Your task to perform on an android device: turn pop-ups on in chrome Image 0: 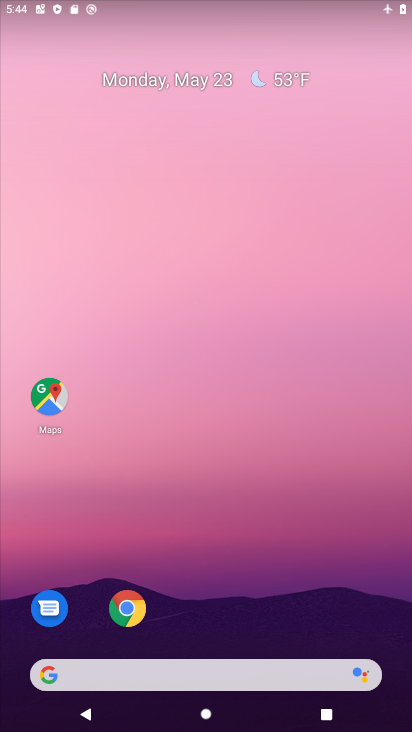
Step 0: click (124, 606)
Your task to perform on an android device: turn pop-ups on in chrome Image 1: 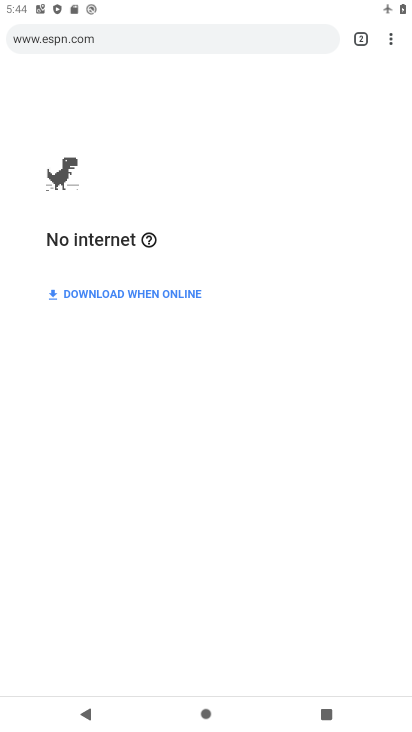
Step 1: drag from (401, 6) to (358, 399)
Your task to perform on an android device: turn pop-ups on in chrome Image 2: 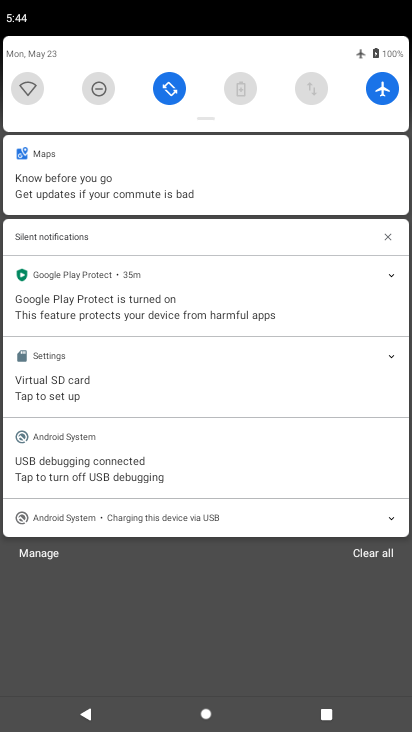
Step 2: click (384, 102)
Your task to perform on an android device: turn pop-ups on in chrome Image 3: 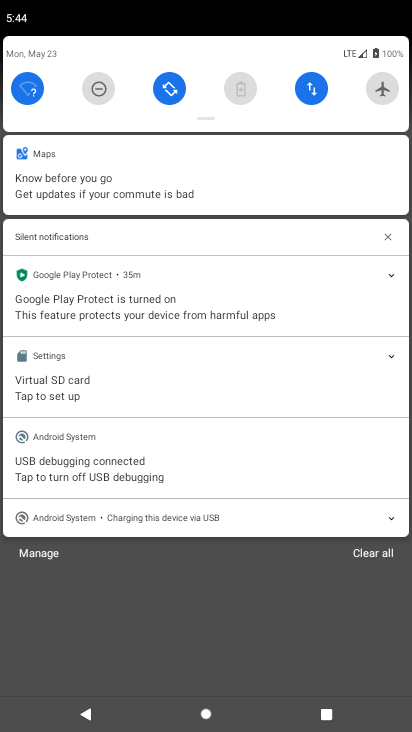
Step 3: click (320, 646)
Your task to perform on an android device: turn pop-ups on in chrome Image 4: 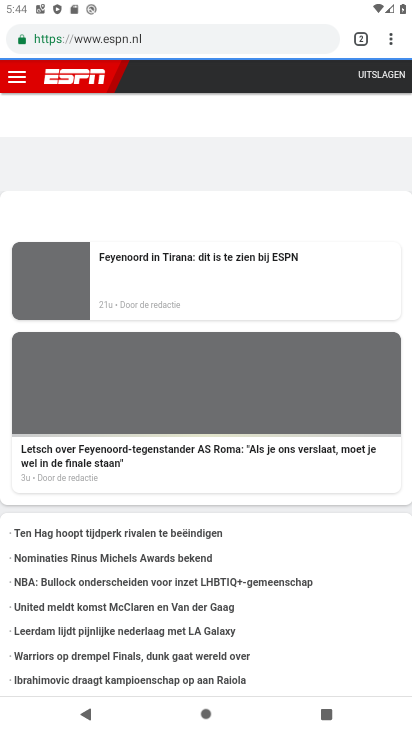
Step 4: click (388, 40)
Your task to perform on an android device: turn pop-ups on in chrome Image 5: 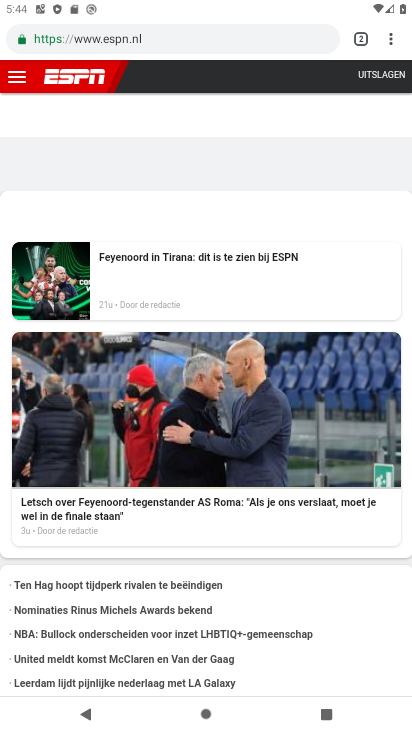
Step 5: click (394, 38)
Your task to perform on an android device: turn pop-ups on in chrome Image 6: 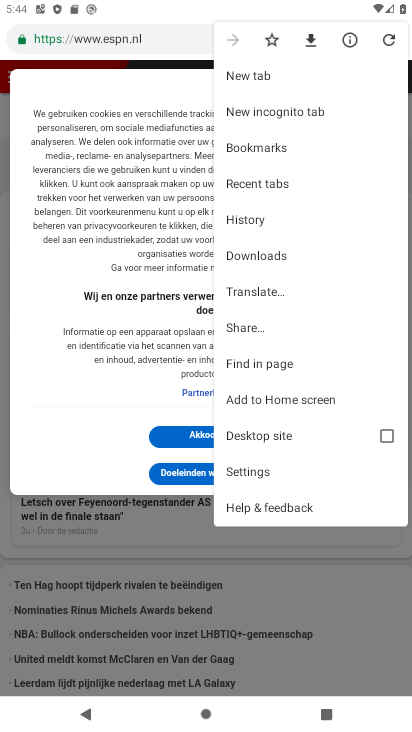
Step 6: click (227, 472)
Your task to perform on an android device: turn pop-ups on in chrome Image 7: 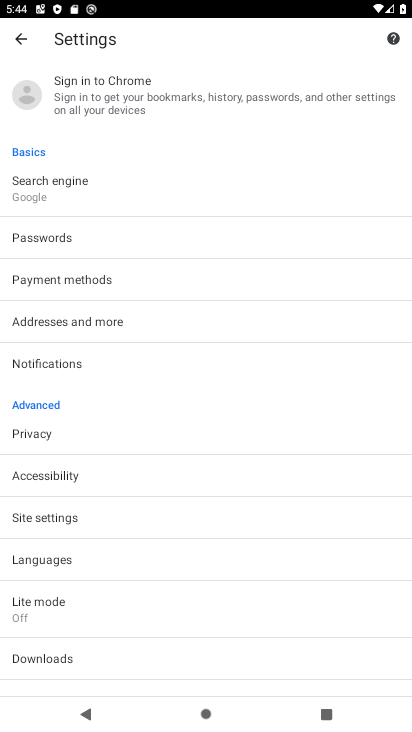
Step 7: click (55, 517)
Your task to perform on an android device: turn pop-ups on in chrome Image 8: 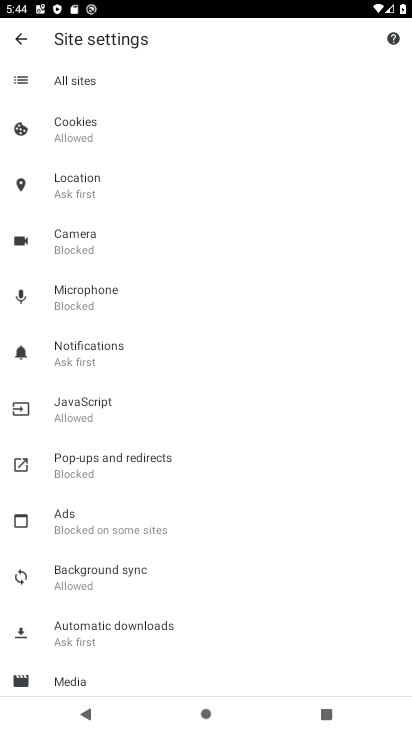
Step 8: click (99, 454)
Your task to perform on an android device: turn pop-ups on in chrome Image 9: 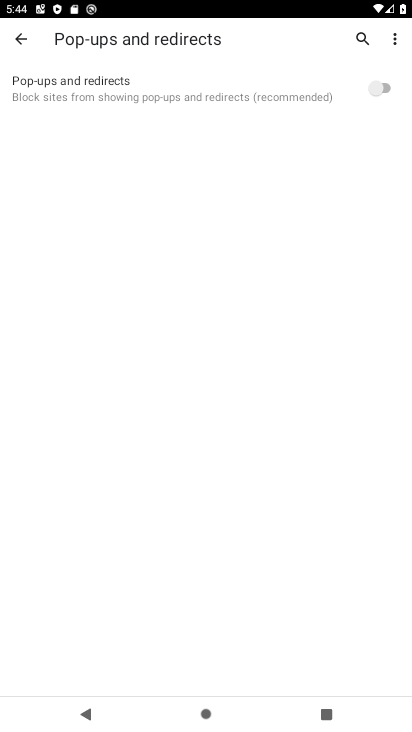
Step 9: click (384, 87)
Your task to perform on an android device: turn pop-ups on in chrome Image 10: 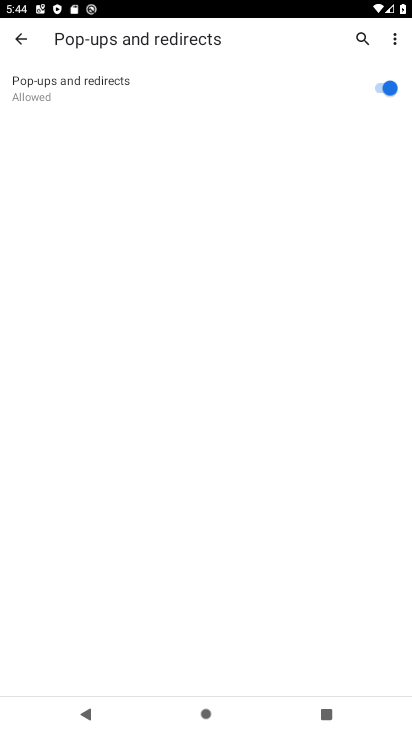
Step 10: task complete